Your task to perform on an android device: turn off location history Image 0: 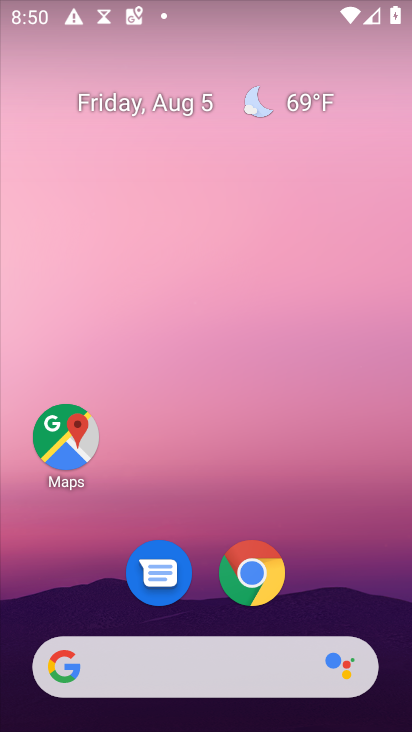
Step 0: drag from (200, 692) to (325, 218)
Your task to perform on an android device: turn off location history Image 1: 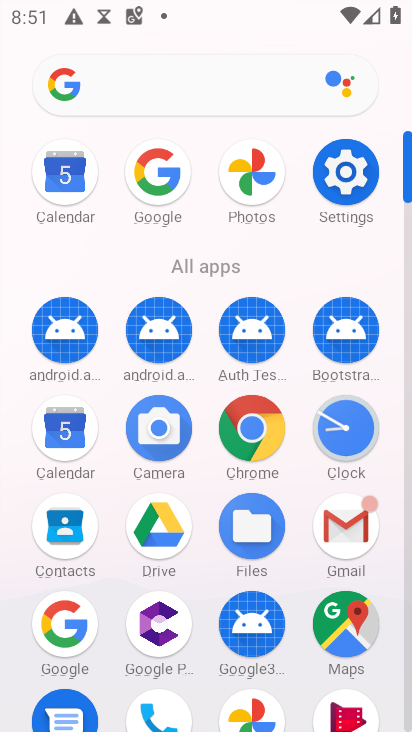
Step 1: click (341, 173)
Your task to perform on an android device: turn off location history Image 2: 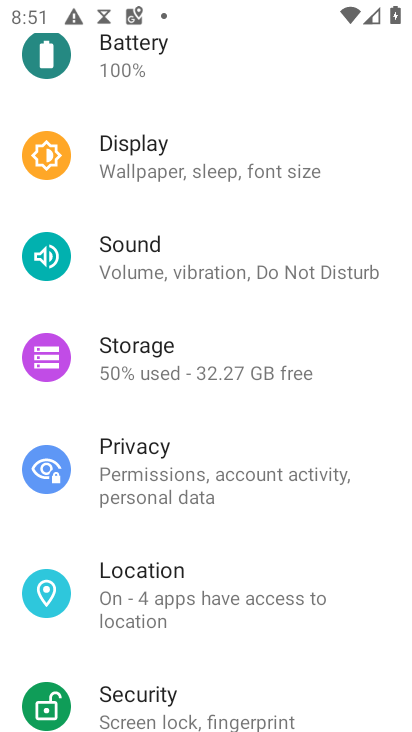
Step 2: click (196, 594)
Your task to perform on an android device: turn off location history Image 3: 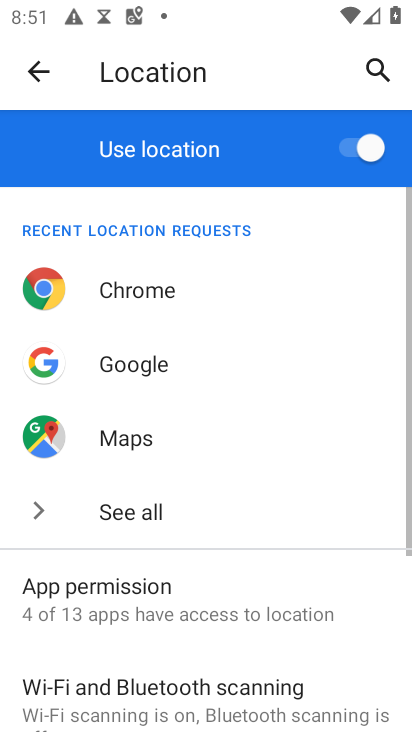
Step 3: drag from (171, 642) to (256, 464)
Your task to perform on an android device: turn off location history Image 4: 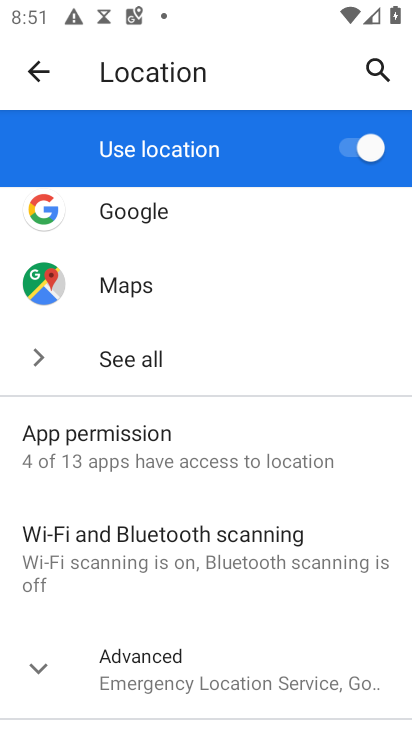
Step 4: click (212, 684)
Your task to perform on an android device: turn off location history Image 5: 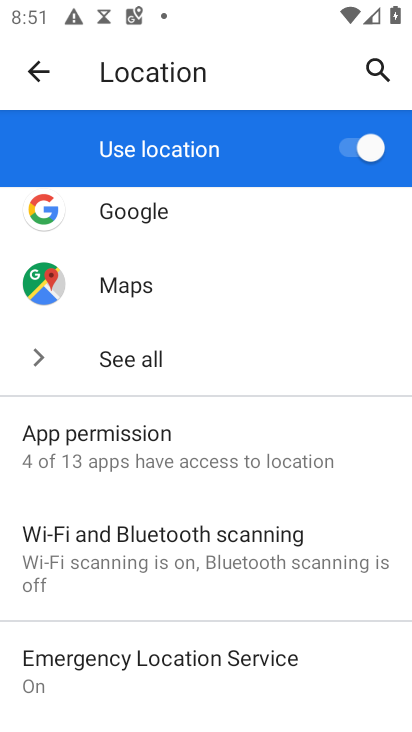
Step 5: task complete